Your task to perform on an android device: Open eBay Image 0: 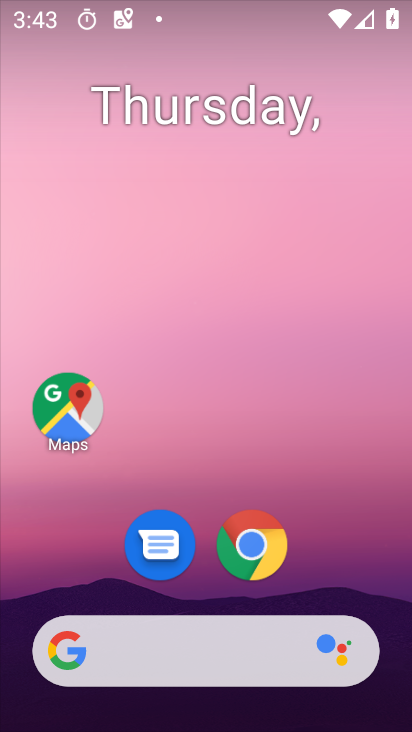
Step 0: click (234, 560)
Your task to perform on an android device: Open eBay Image 1: 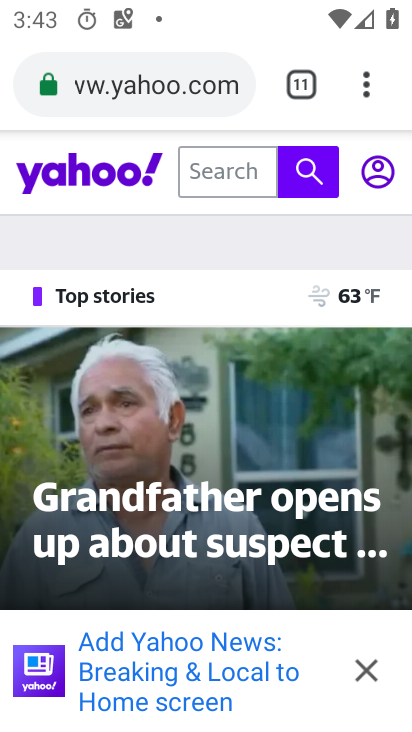
Step 1: click (366, 92)
Your task to perform on an android device: Open eBay Image 2: 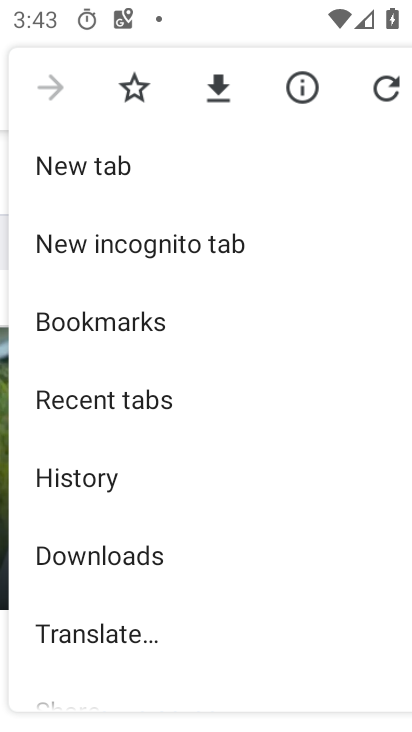
Step 2: click (86, 162)
Your task to perform on an android device: Open eBay Image 3: 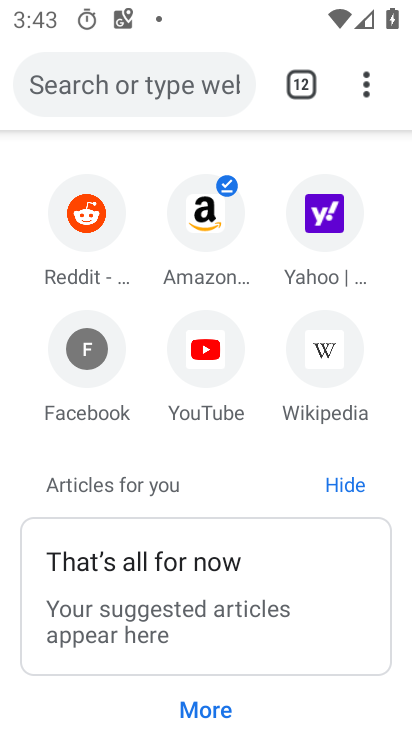
Step 3: click (150, 88)
Your task to perform on an android device: Open eBay Image 4: 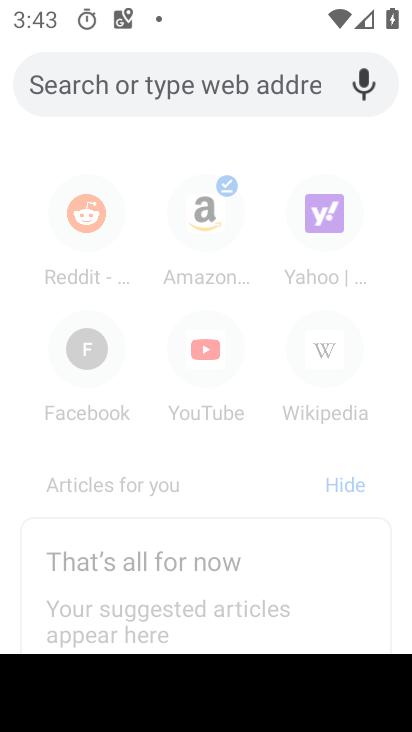
Step 4: type "eBay"
Your task to perform on an android device: Open eBay Image 5: 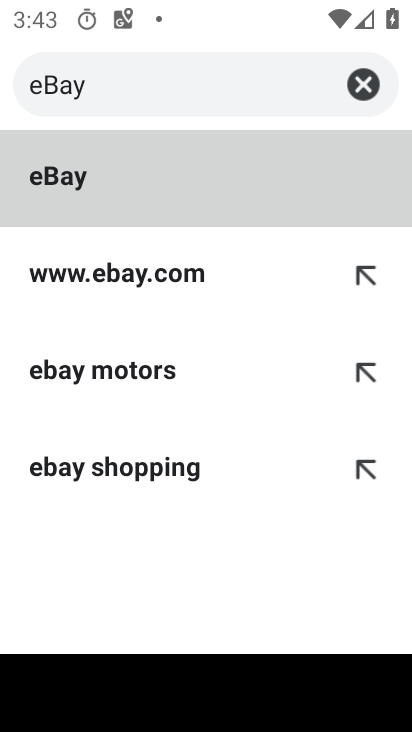
Step 5: click (39, 173)
Your task to perform on an android device: Open eBay Image 6: 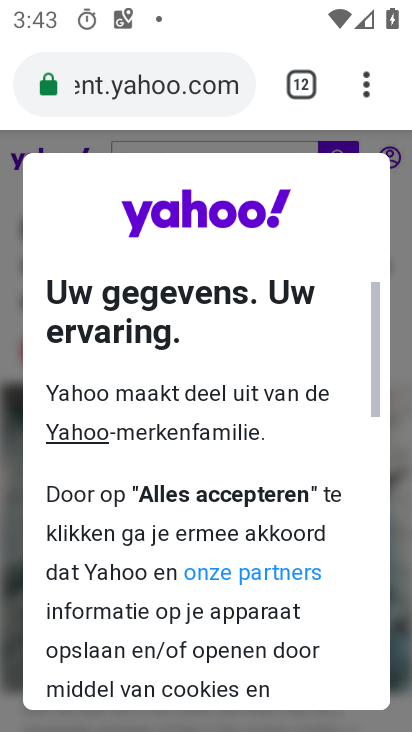
Step 6: drag from (220, 675) to (222, 321)
Your task to perform on an android device: Open eBay Image 7: 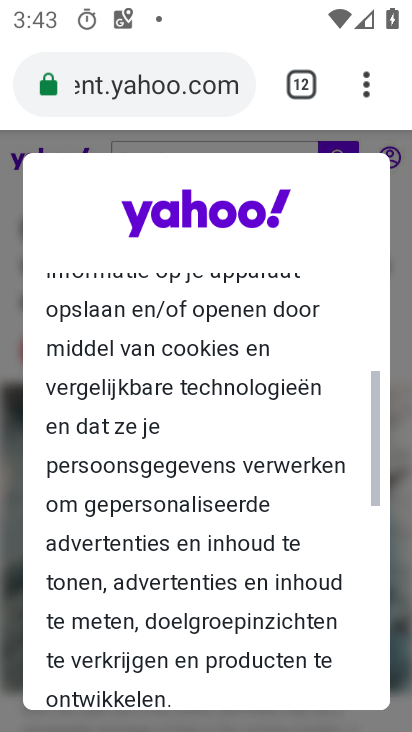
Step 7: drag from (221, 686) to (225, 238)
Your task to perform on an android device: Open eBay Image 8: 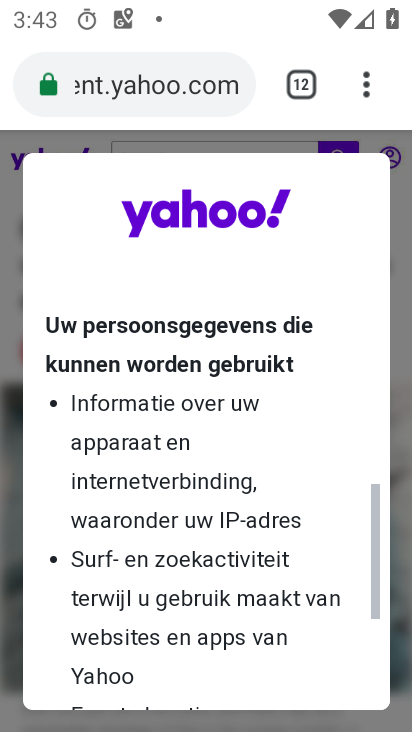
Step 8: drag from (237, 671) to (243, 211)
Your task to perform on an android device: Open eBay Image 9: 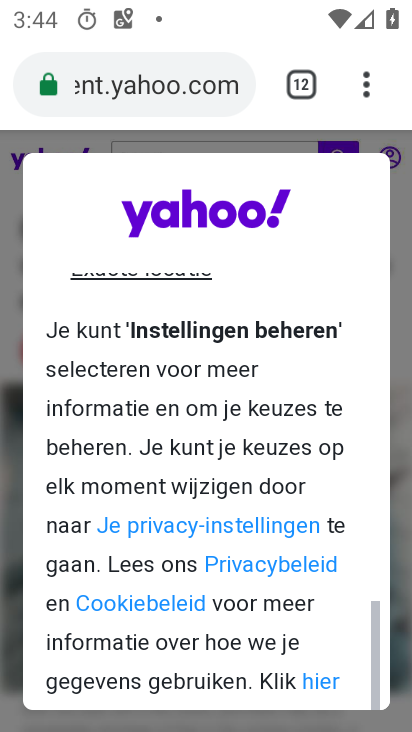
Step 9: drag from (246, 641) to (252, 232)
Your task to perform on an android device: Open eBay Image 10: 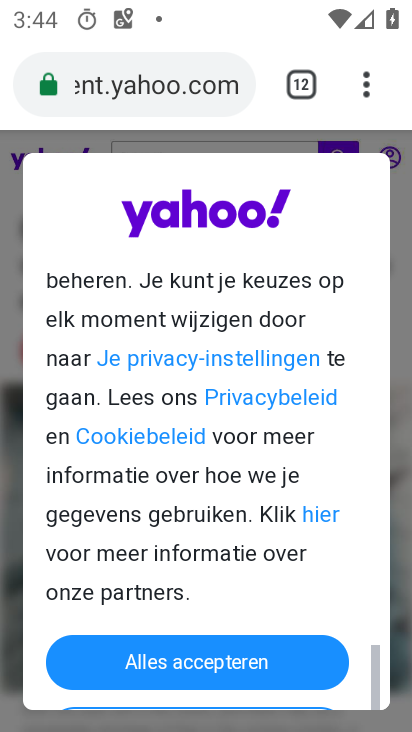
Step 10: click (221, 661)
Your task to perform on an android device: Open eBay Image 11: 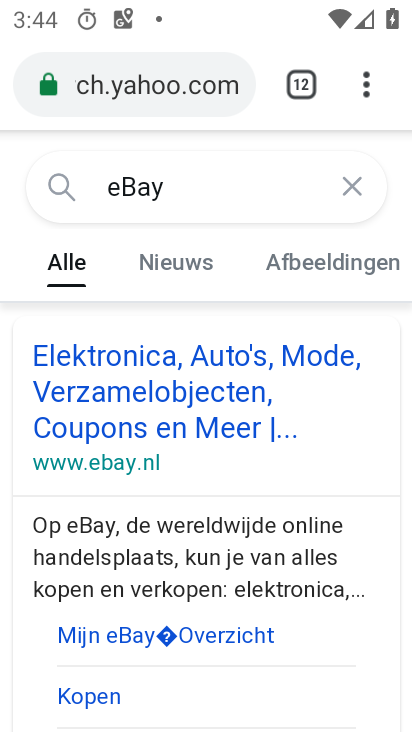
Step 11: click (156, 382)
Your task to perform on an android device: Open eBay Image 12: 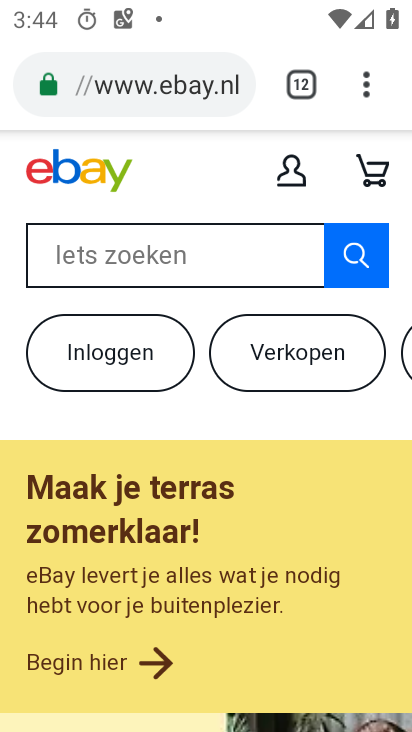
Step 12: task complete